Your task to perform on an android device: Open Google Maps Image 0: 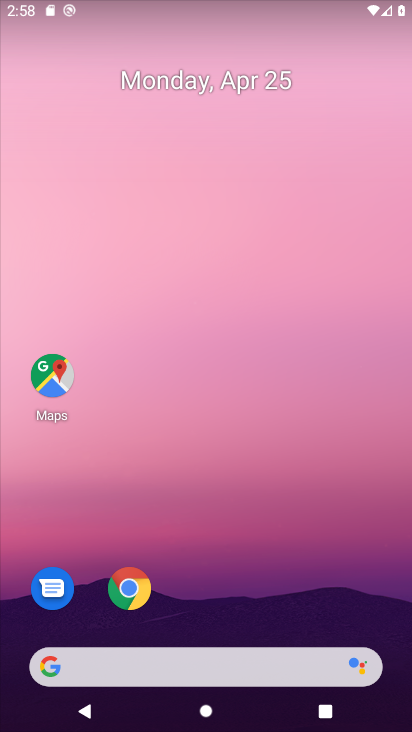
Step 0: click (56, 378)
Your task to perform on an android device: Open Google Maps Image 1: 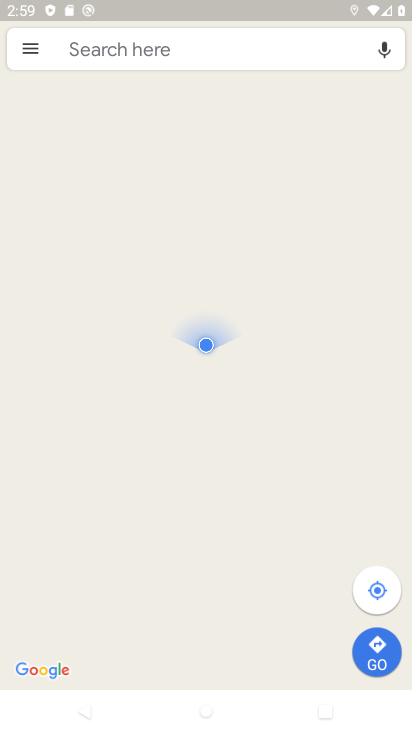
Step 1: task complete